Your task to perform on an android device: empty trash in the gmail app Image 0: 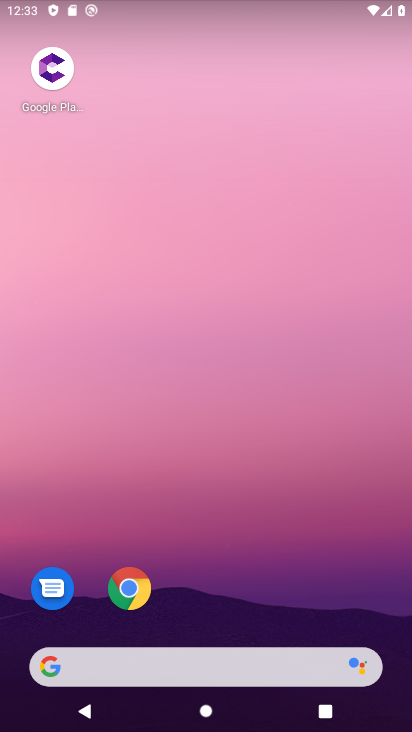
Step 0: drag from (284, 588) to (256, 47)
Your task to perform on an android device: empty trash in the gmail app Image 1: 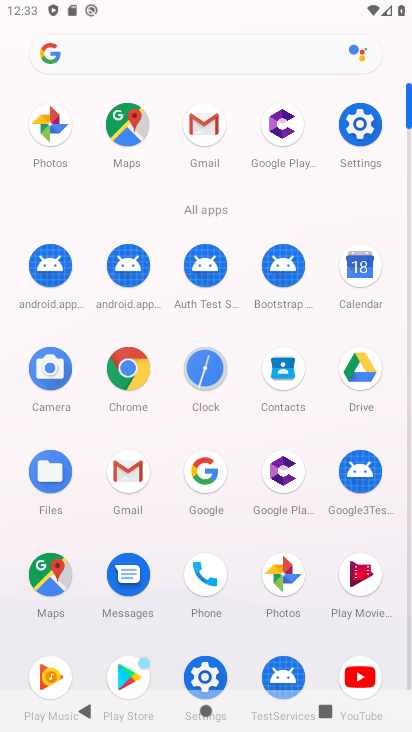
Step 1: click (124, 464)
Your task to perform on an android device: empty trash in the gmail app Image 2: 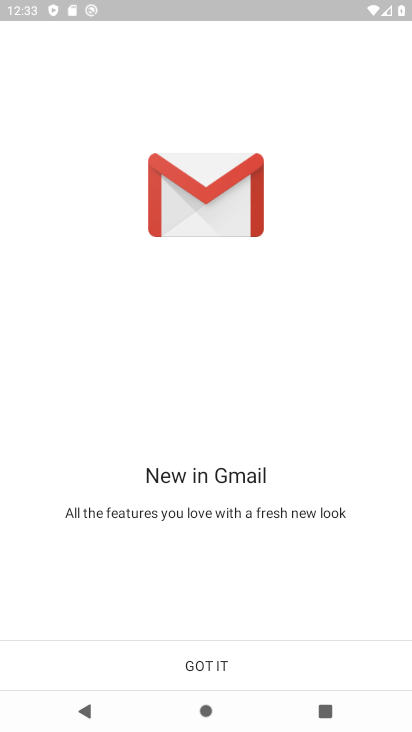
Step 2: click (250, 672)
Your task to perform on an android device: empty trash in the gmail app Image 3: 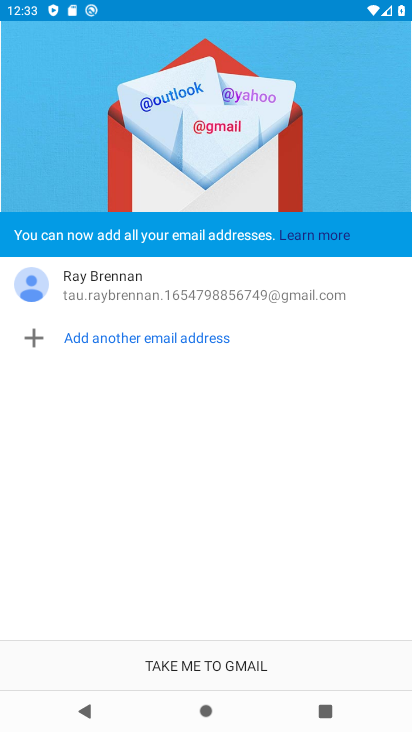
Step 3: click (220, 639)
Your task to perform on an android device: empty trash in the gmail app Image 4: 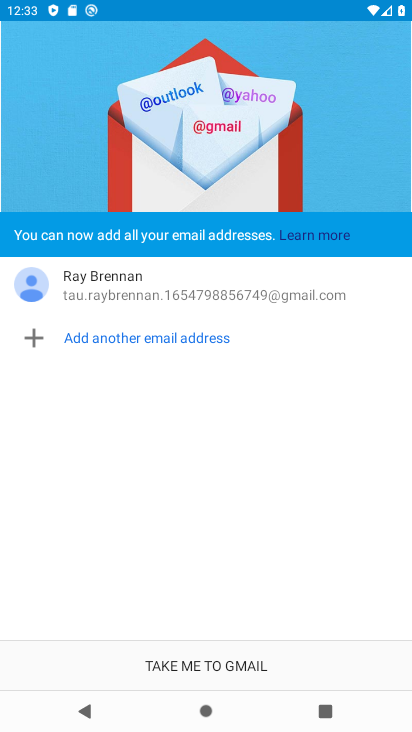
Step 4: click (225, 652)
Your task to perform on an android device: empty trash in the gmail app Image 5: 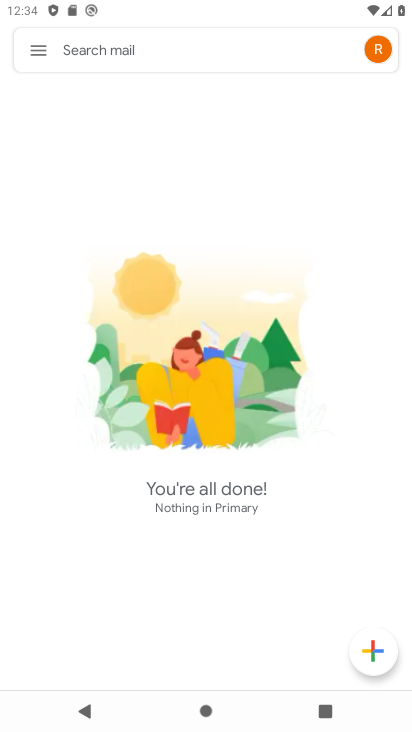
Step 5: click (23, 44)
Your task to perform on an android device: empty trash in the gmail app Image 6: 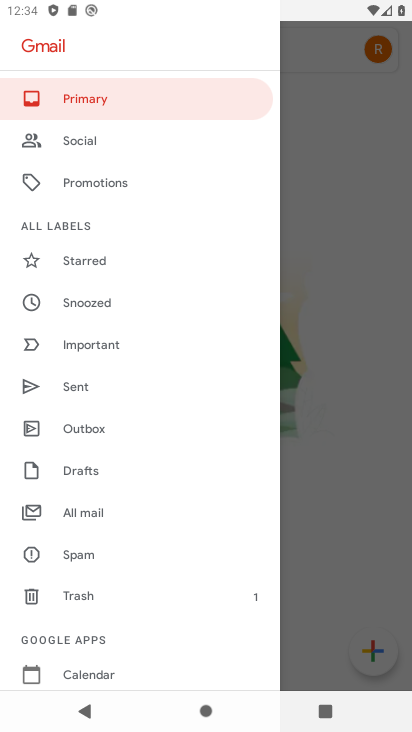
Step 6: click (95, 595)
Your task to perform on an android device: empty trash in the gmail app Image 7: 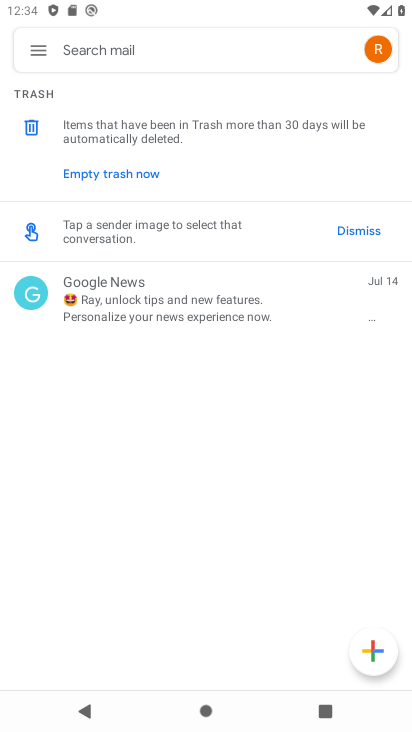
Step 7: click (71, 168)
Your task to perform on an android device: empty trash in the gmail app Image 8: 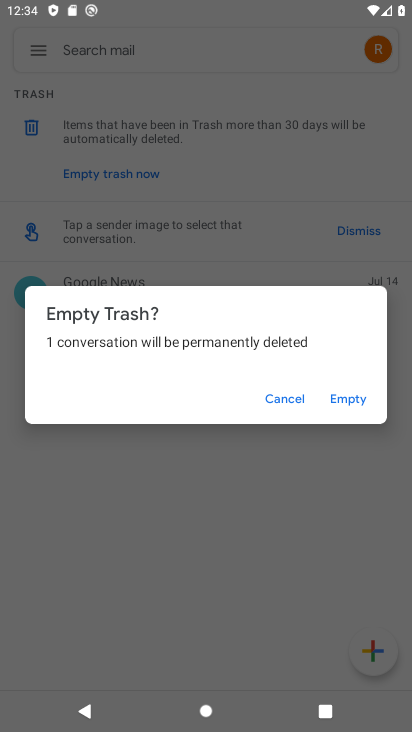
Step 8: click (345, 411)
Your task to perform on an android device: empty trash in the gmail app Image 9: 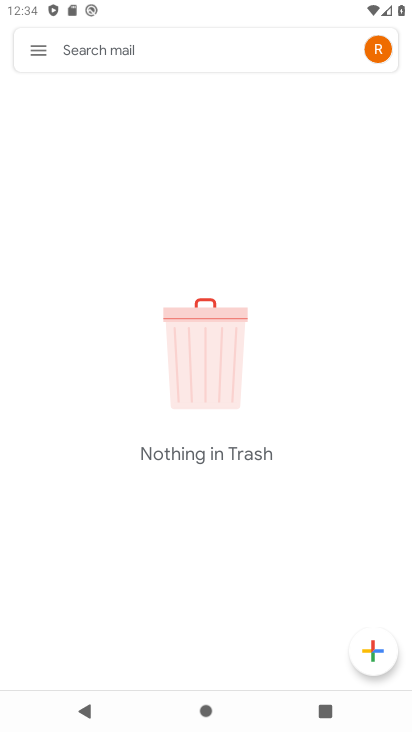
Step 9: task complete